Your task to perform on an android device: toggle priority inbox in the gmail app Image 0: 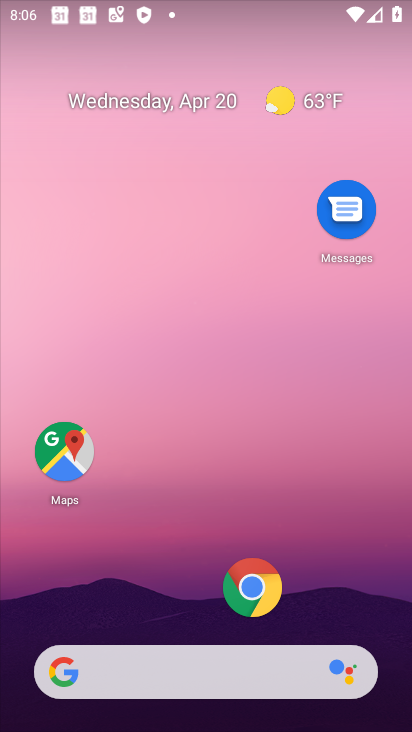
Step 0: drag from (177, 678) to (340, 51)
Your task to perform on an android device: toggle priority inbox in the gmail app Image 1: 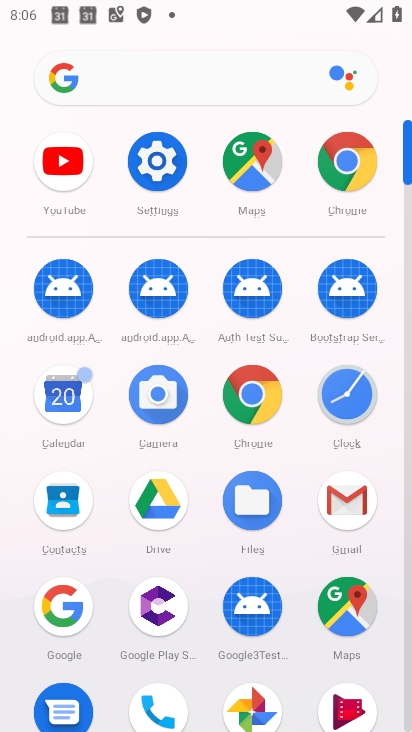
Step 1: click (349, 504)
Your task to perform on an android device: toggle priority inbox in the gmail app Image 2: 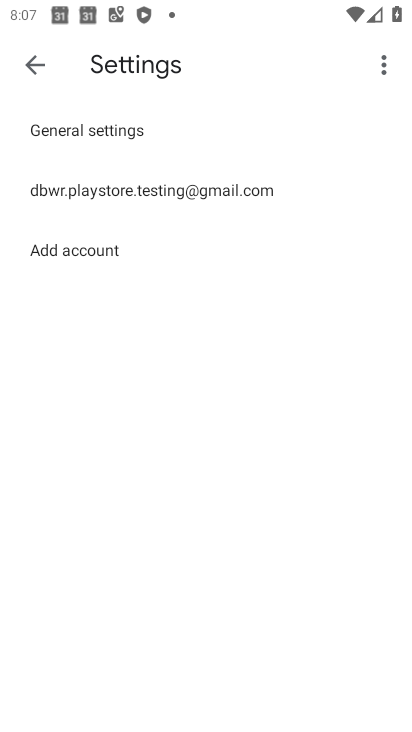
Step 2: click (189, 186)
Your task to perform on an android device: toggle priority inbox in the gmail app Image 3: 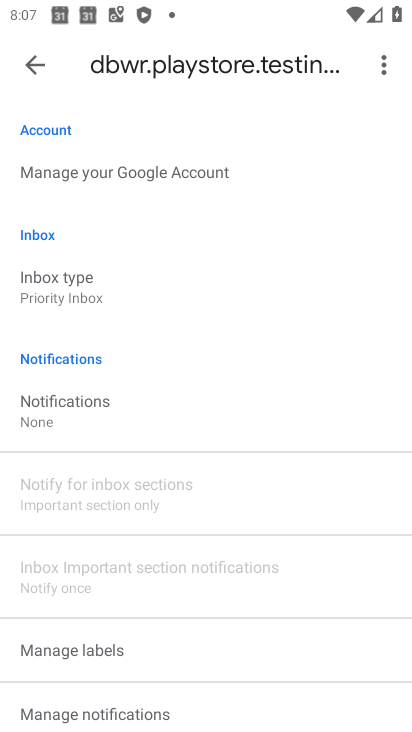
Step 3: click (85, 297)
Your task to perform on an android device: toggle priority inbox in the gmail app Image 4: 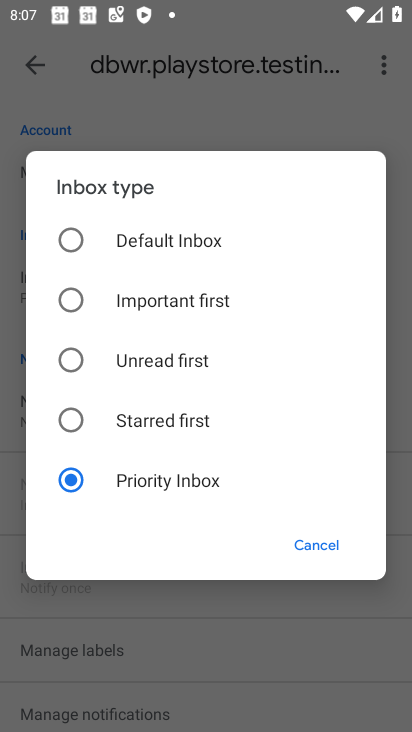
Step 4: click (67, 234)
Your task to perform on an android device: toggle priority inbox in the gmail app Image 5: 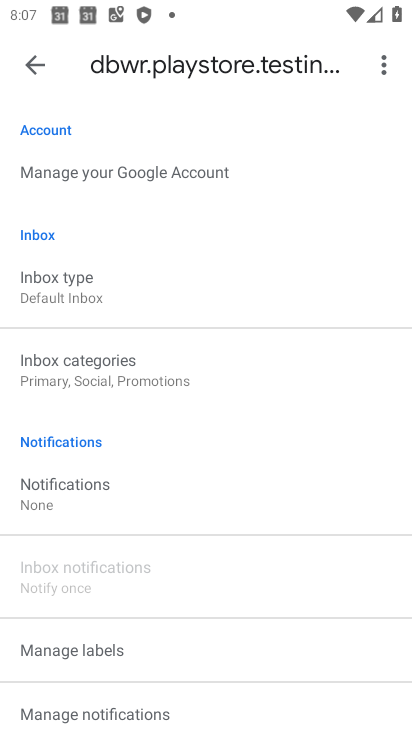
Step 5: task complete